Your task to perform on an android device: Go to battery settings Image 0: 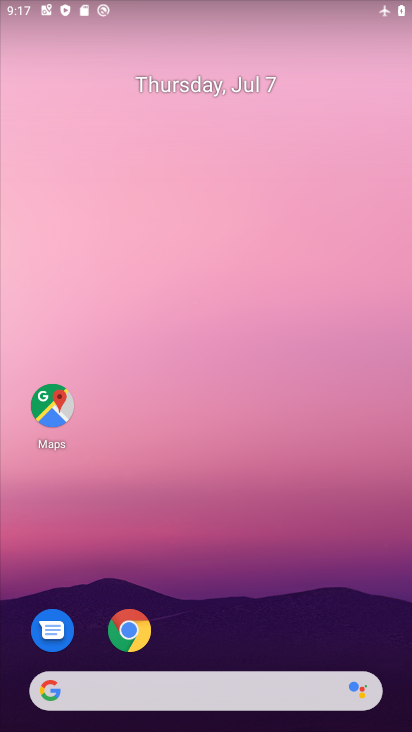
Step 0: click (214, 600)
Your task to perform on an android device: Go to battery settings Image 1: 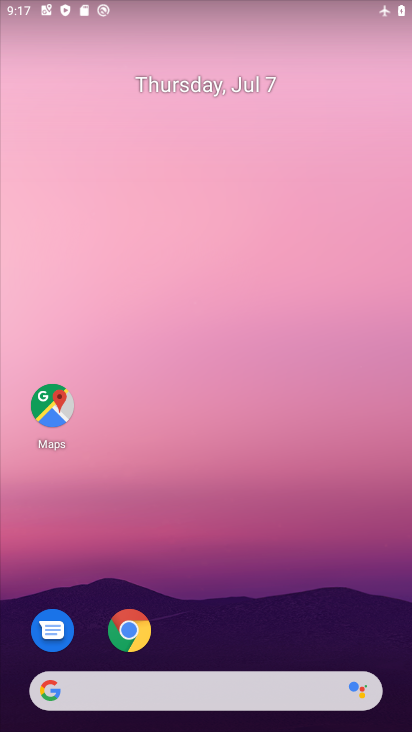
Step 1: click (248, 626)
Your task to perform on an android device: Go to battery settings Image 2: 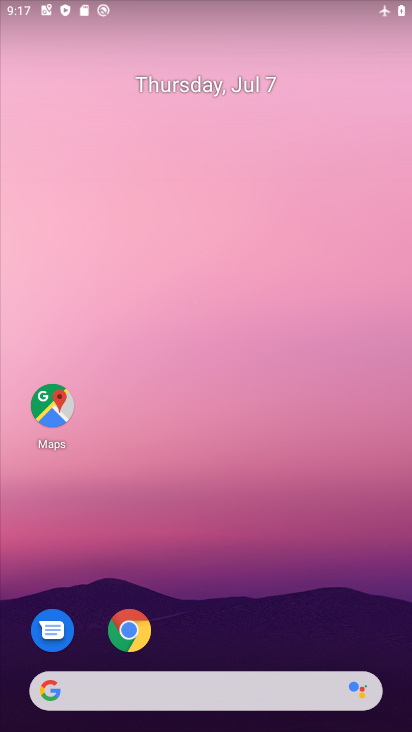
Step 2: drag from (219, 630) to (224, 122)
Your task to perform on an android device: Go to battery settings Image 3: 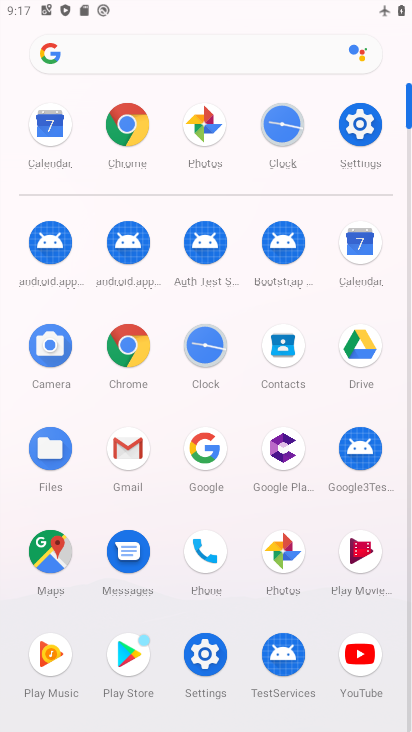
Step 3: click (354, 140)
Your task to perform on an android device: Go to battery settings Image 4: 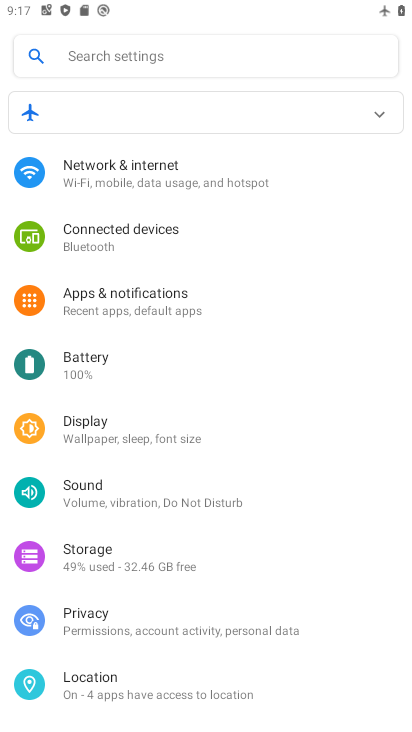
Step 4: click (130, 371)
Your task to perform on an android device: Go to battery settings Image 5: 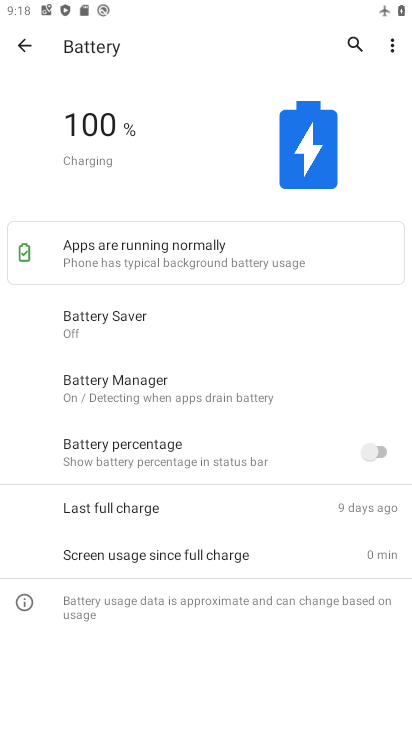
Step 5: task complete